Your task to perform on an android device: stop showing notifications on the lock screen Image 0: 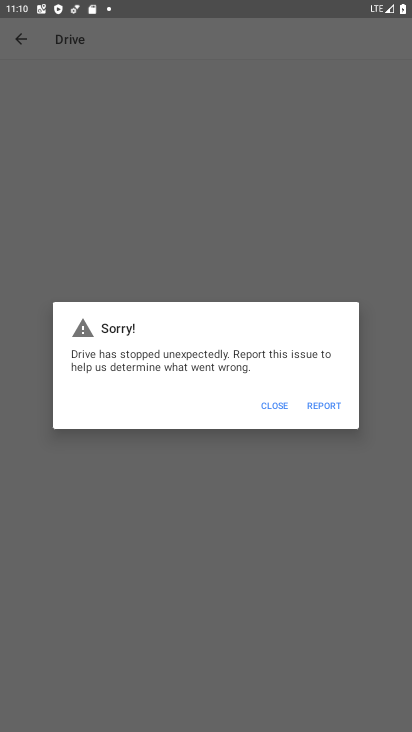
Step 0: press home button
Your task to perform on an android device: stop showing notifications on the lock screen Image 1: 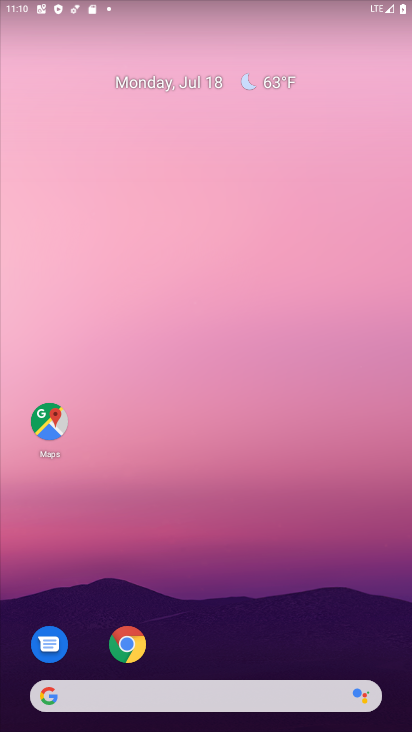
Step 1: drag from (267, 623) to (263, 3)
Your task to perform on an android device: stop showing notifications on the lock screen Image 2: 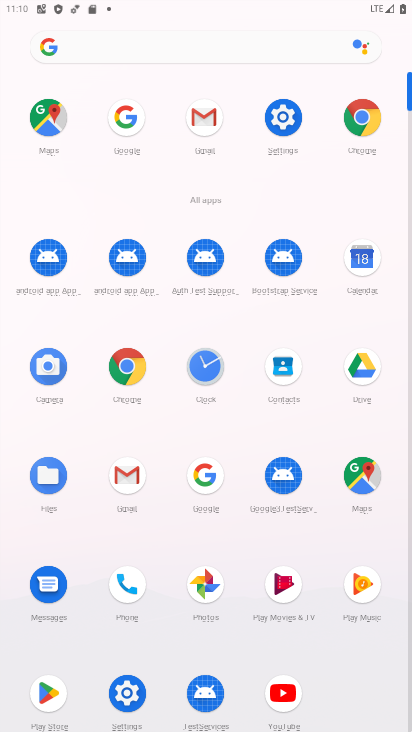
Step 2: click (273, 106)
Your task to perform on an android device: stop showing notifications on the lock screen Image 3: 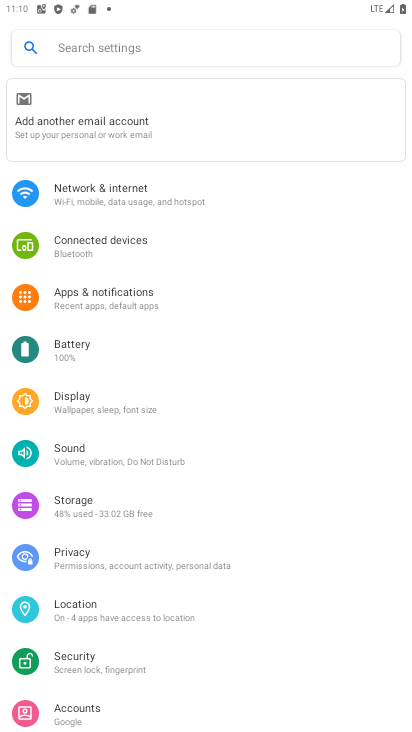
Step 3: click (103, 292)
Your task to perform on an android device: stop showing notifications on the lock screen Image 4: 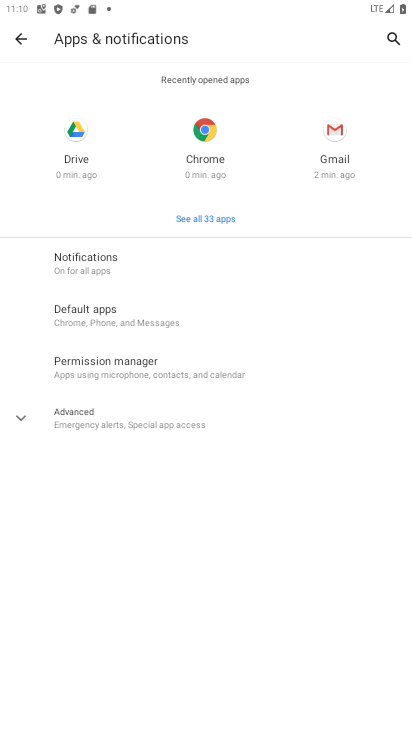
Step 4: click (85, 275)
Your task to perform on an android device: stop showing notifications on the lock screen Image 5: 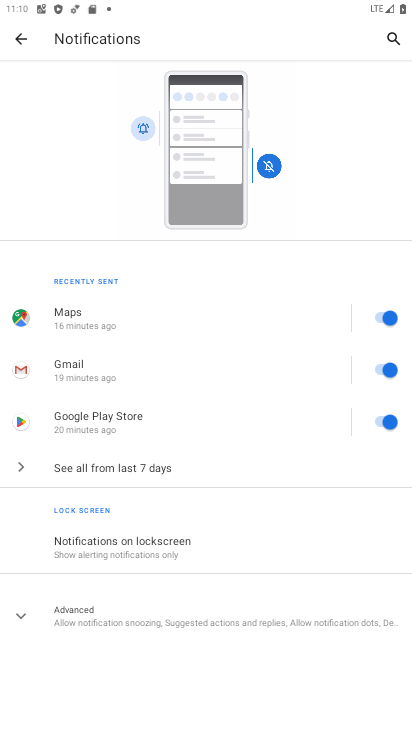
Step 5: click (131, 542)
Your task to perform on an android device: stop showing notifications on the lock screen Image 6: 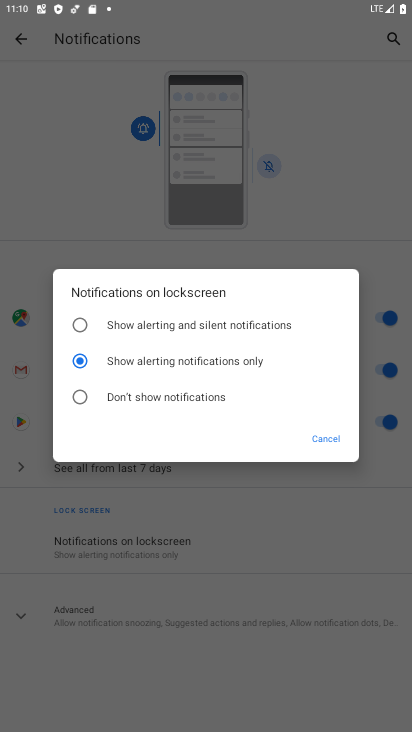
Step 6: click (151, 393)
Your task to perform on an android device: stop showing notifications on the lock screen Image 7: 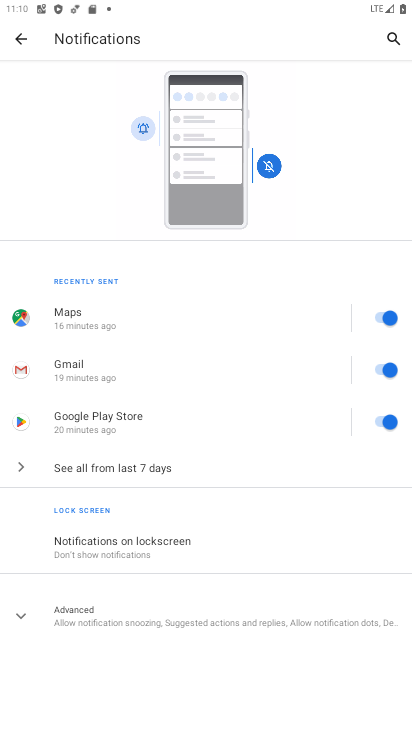
Step 7: task complete